Your task to perform on an android device: Open the phone app and click the voicemail tab. Image 0: 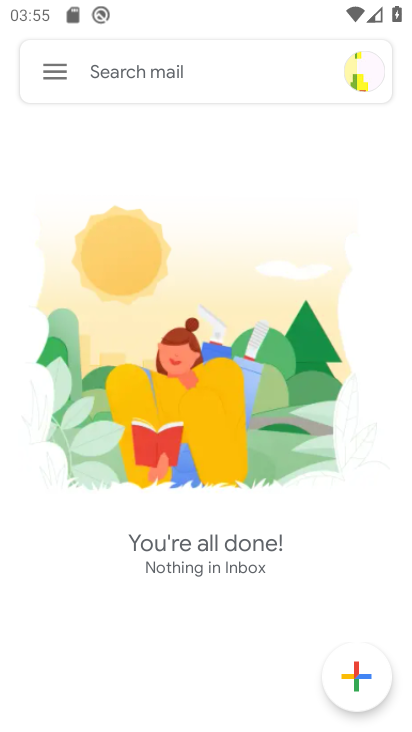
Step 0: press home button
Your task to perform on an android device: Open the phone app and click the voicemail tab. Image 1: 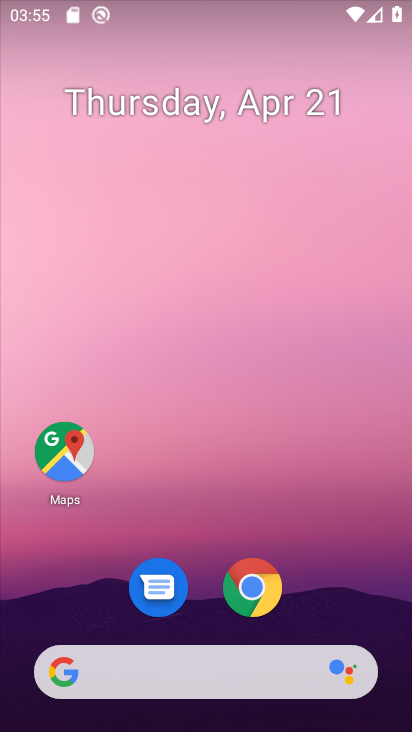
Step 1: drag from (341, 599) to (339, 197)
Your task to perform on an android device: Open the phone app and click the voicemail tab. Image 2: 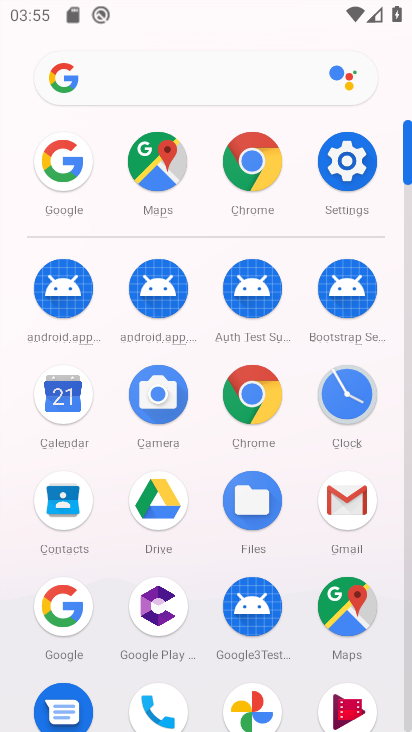
Step 2: drag from (216, 653) to (204, 431)
Your task to perform on an android device: Open the phone app and click the voicemail tab. Image 3: 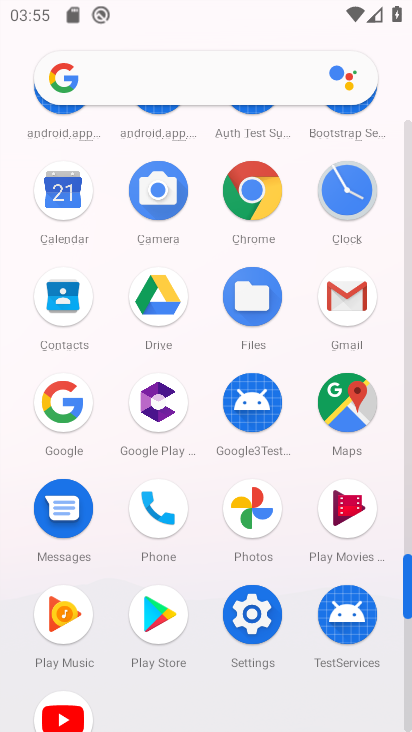
Step 3: click (163, 512)
Your task to perform on an android device: Open the phone app and click the voicemail tab. Image 4: 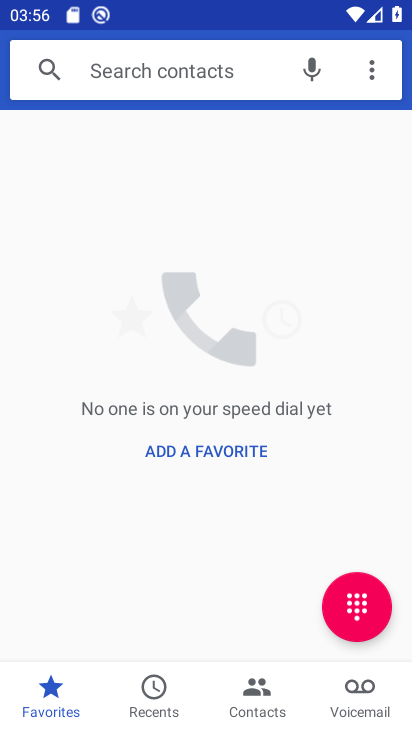
Step 4: click (363, 697)
Your task to perform on an android device: Open the phone app and click the voicemail tab. Image 5: 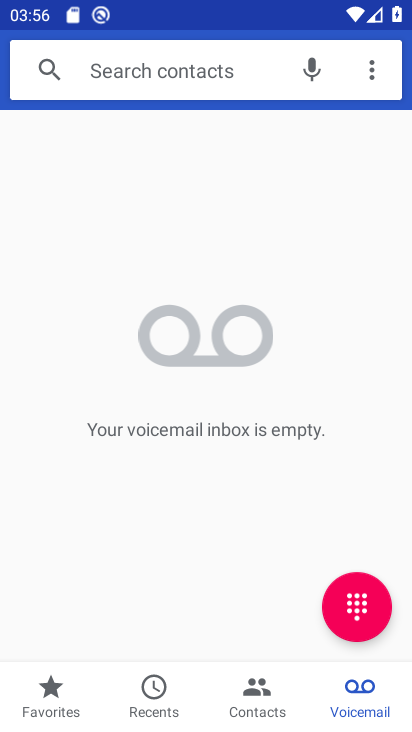
Step 5: task complete